Your task to perform on an android device: Search for "rayovac triple a" on amazon.com, select the first entry, and add it to the cart. Image 0: 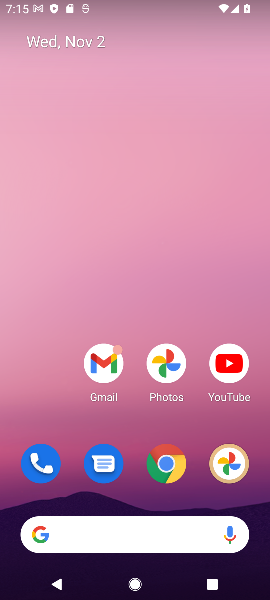
Step 0: click (171, 472)
Your task to perform on an android device: Search for "rayovac triple a" on amazon.com, select the first entry, and add it to the cart. Image 1: 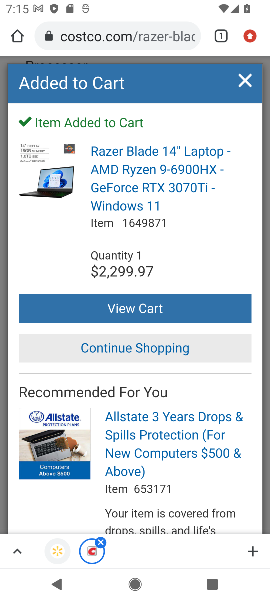
Step 1: click (137, 42)
Your task to perform on an android device: Search for "rayovac triple a" on amazon.com, select the first entry, and add it to the cart. Image 2: 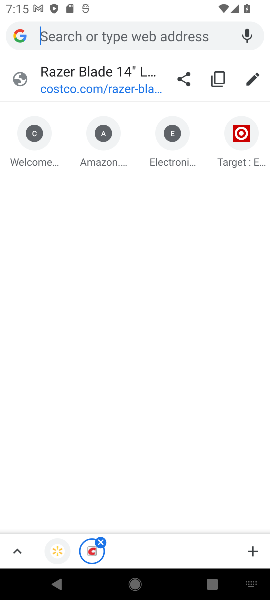
Step 2: click (92, 145)
Your task to perform on an android device: Search for "rayovac triple a" on amazon.com, select the first entry, and add it to the cart. Image 3: 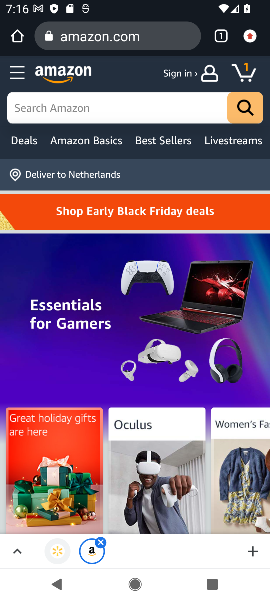
Step 3: click (101, 107)
Your task to perform on an android device: Search for "rayovac triple a" on amazon.com, select the first entry, and add it to the cart. Image 4: 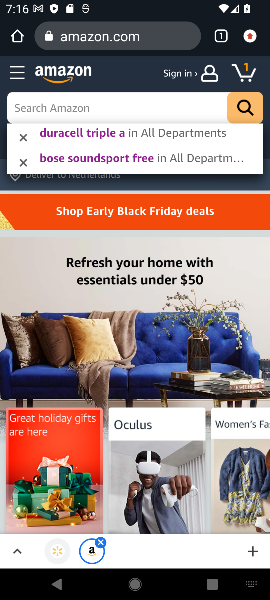
Step 4: type "rayovac triple a"
Your task to perform on an android device: Search for "rayovac triple a" on amazon.com, select the first entry, and add it to the cart. Image 5: 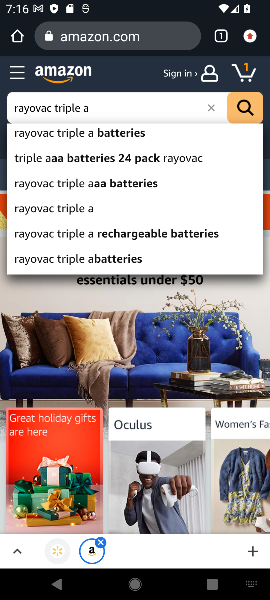
Step 5: click (95, 139)
Your task to perform on an android device: Search for "rayovac triple a" on amazon.com, select the first entry, and add it to the cart. Image 6: 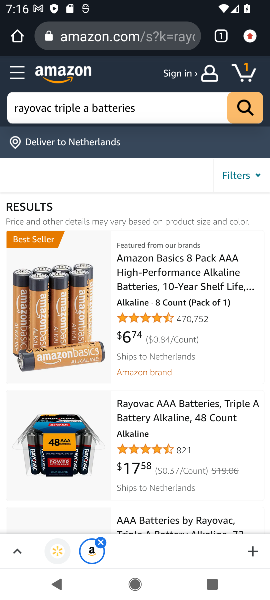
Step 6: task complete